Your task to perform on an android device: uninstall "Microsoft Outlook" Image 0: 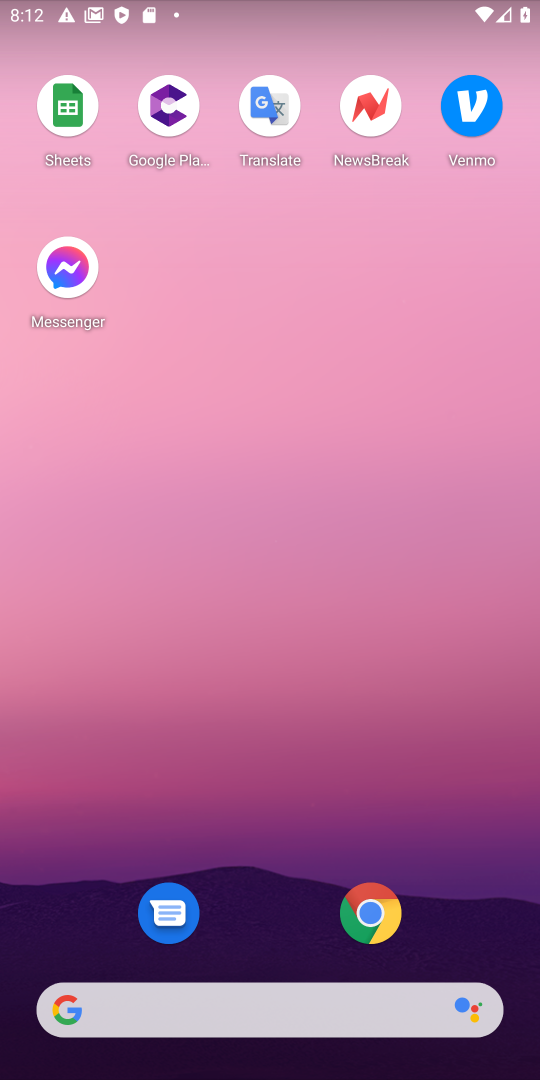
Step 0: drag from (214, 686) to (199, 277)
Your task to perform on an android device: uninstall "Microsoft Outlook" Image 1: 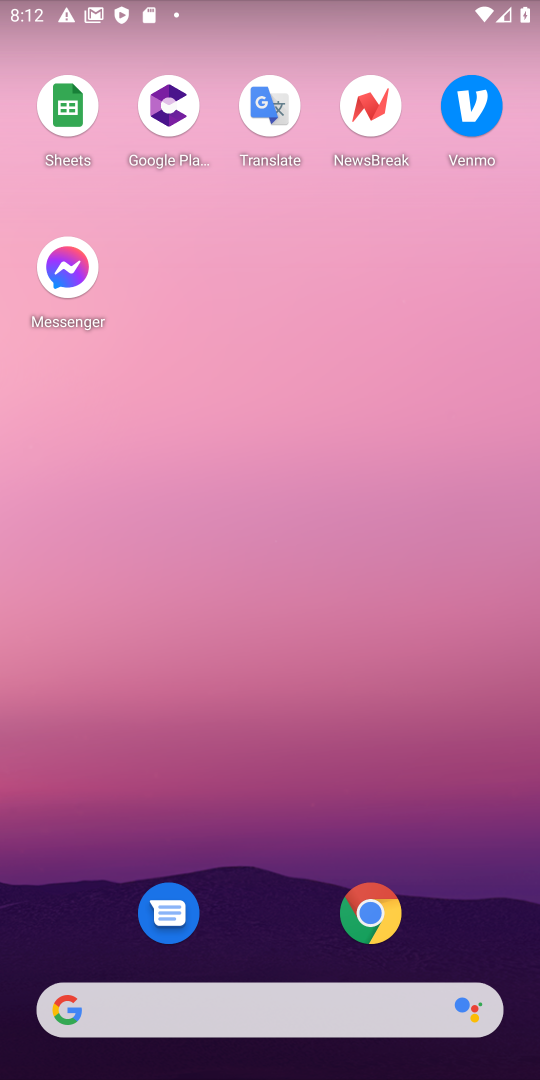
Step 1: drag from (297, 990) to (225, 29)
Your task to perform on an android device: uninstall "Microsoft Outlook" Image 2: 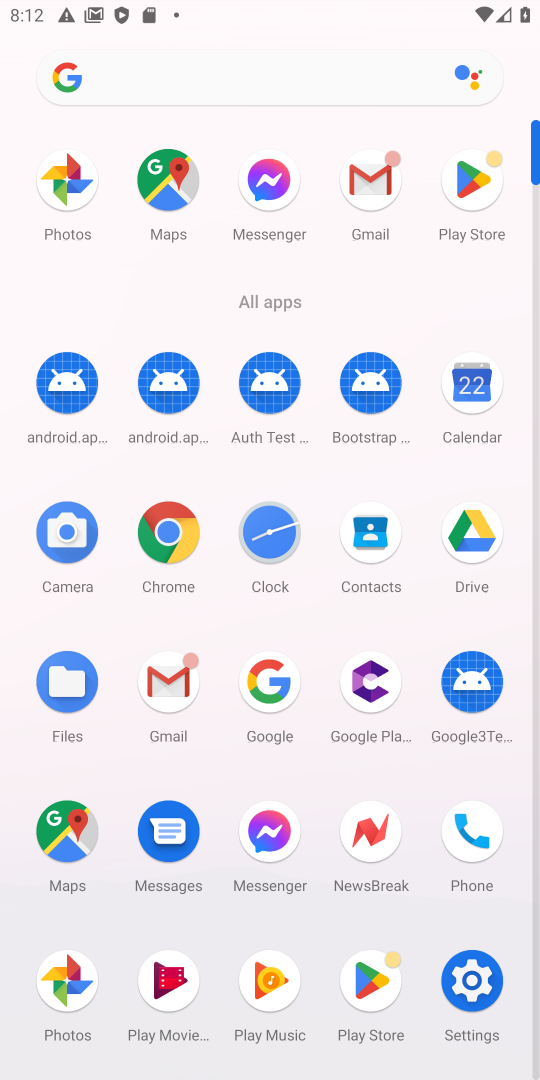
Step 2: click (454, 184)
Your task to perform on an android device: uninstall "Microsoft Outlook" Image 3: 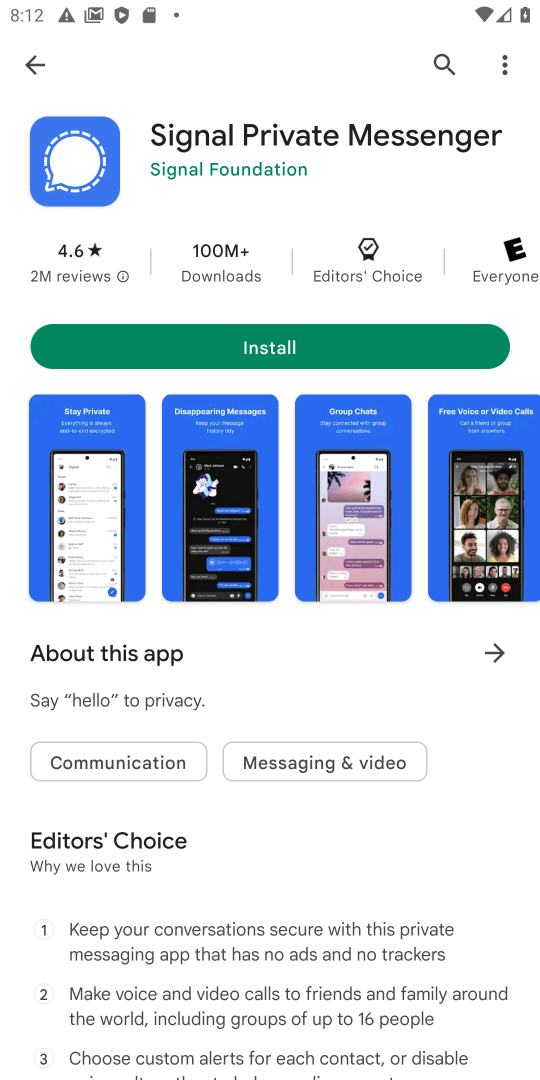
Step 3: click (493, 56)
Your task to perform on an android device: uninstall "Microsoft Outlook" Image 4: 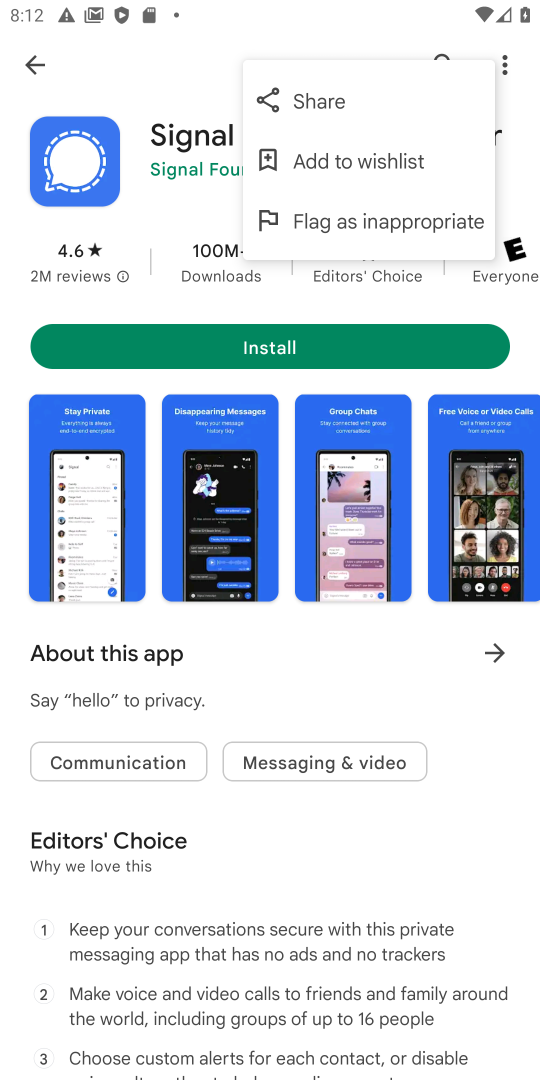
Step 4: click (185, 57)
Your task to perform on an android device: uninstall "Microsoft Outlook" Image 5: 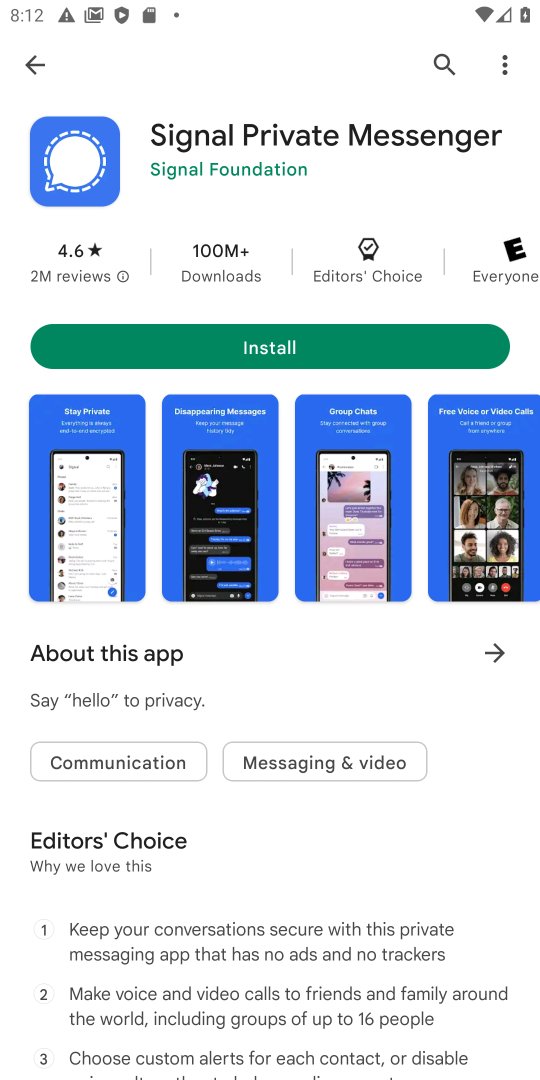
Step 5: click (446, 70)
Your task to perform on an android device: uninstall "Microsoft Outlook" Image 6: 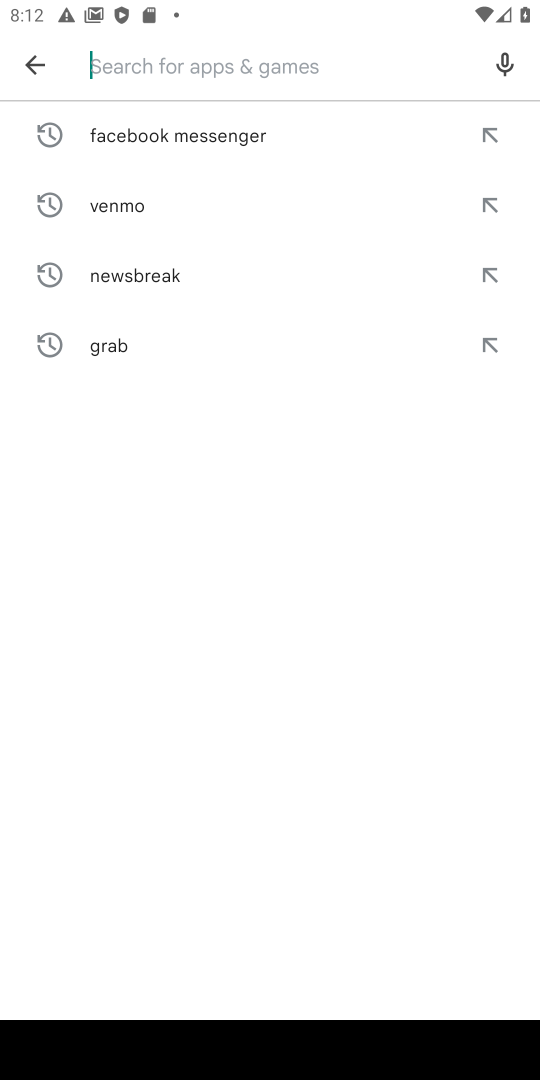
Step 6: type "Microsoft Outlook"
Your task to perform on an android device: uninstall "Microsoft Outlook" Image 7: 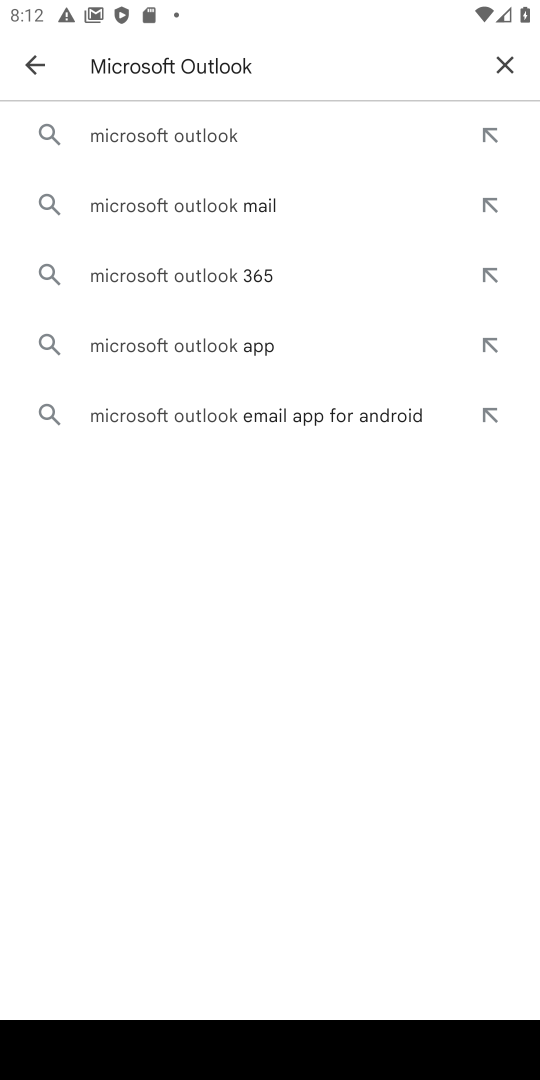
Step 7: click (195, 148)
Your task to perform on an android device: uninstall "Microsoft Outlook" Image 8: 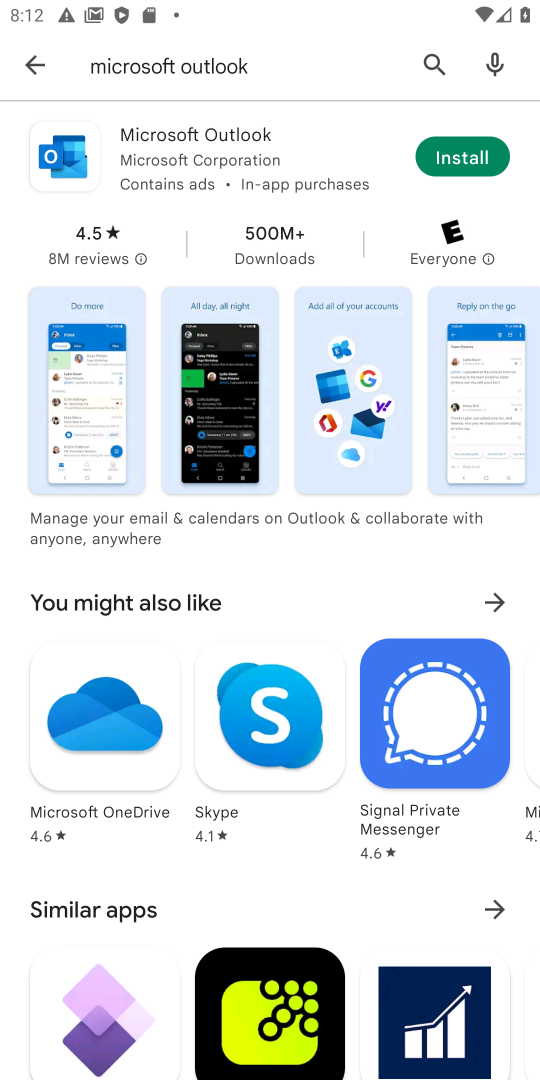
Step 8: task complete